Your task to perform on an android device: Turn off the flashlight Image 0: 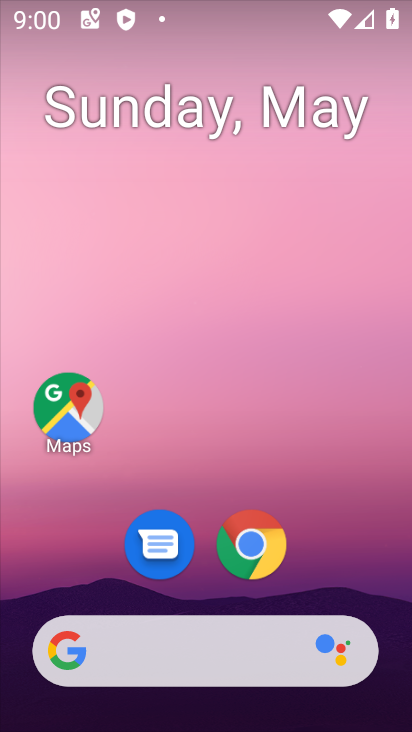
Step 0: drag from (346, 567) to (48, 18)
Your task to perform on an android device: Turn off the flashlight Image 1: 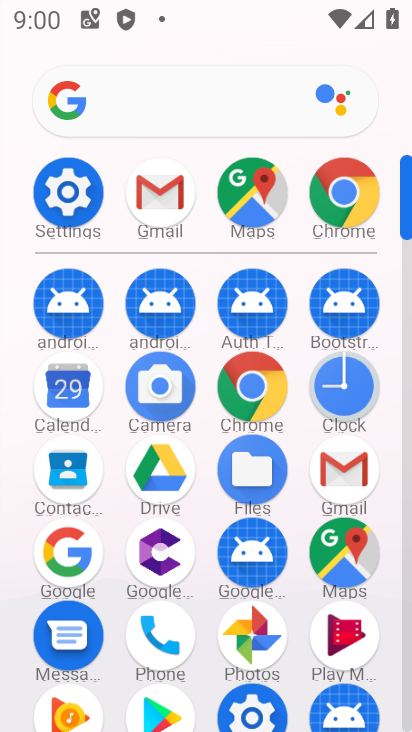
Step 1: click (60, 230)
Your task to perform on an android device: Turn off the flashlight Image 2: 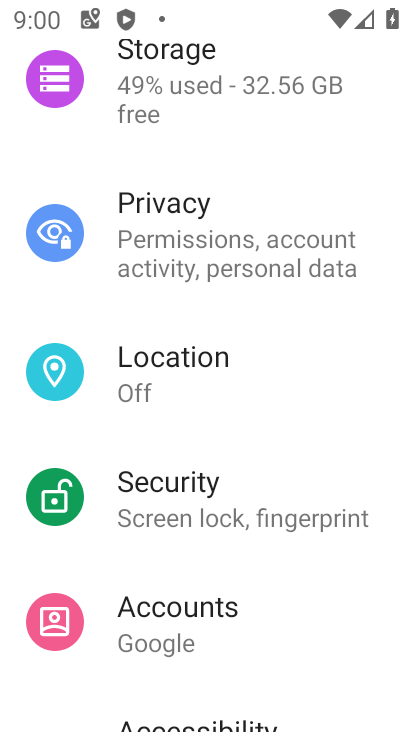
Step 2: task complete